Your task to perform on an android device: Is it going to rain today? Image 0: 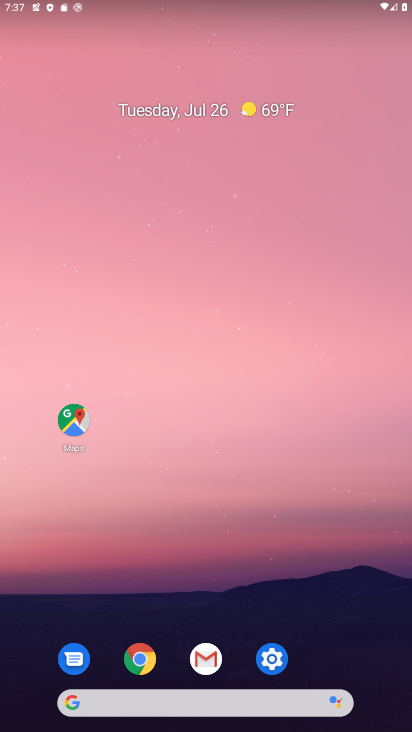
Step 0: click (171, 709)
Your task to perform on an android device: Is it going to rain today? Image 1: 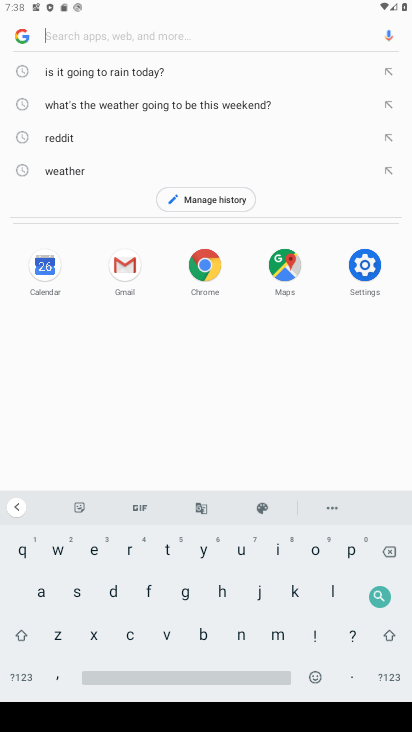
Step 1: click (126, 70)
Your task to perform on an android device: Is it going to rain today? Image 2: 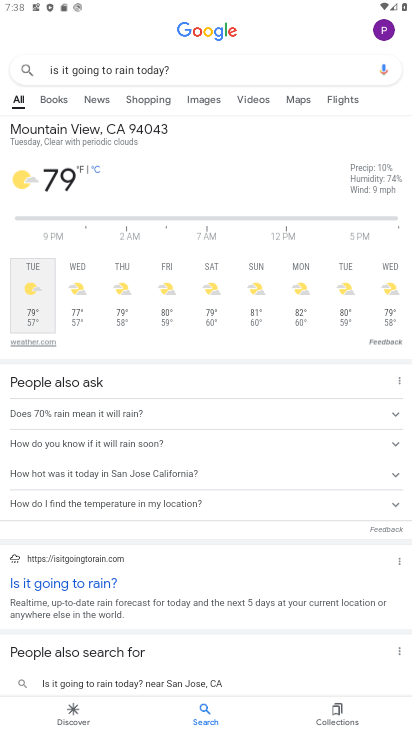
Step 2: task complete